Your task to perform on an android device: check google app version Image 0: 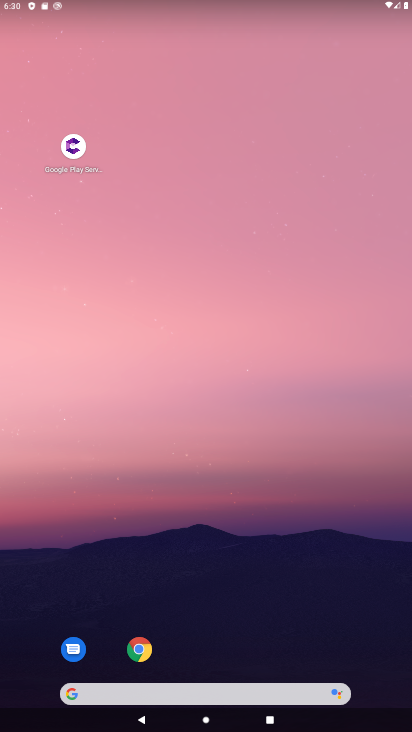
Step 0: drag from (222, 592) to (172, 61)
Your task to perform on an android device: check google app version Image 1: 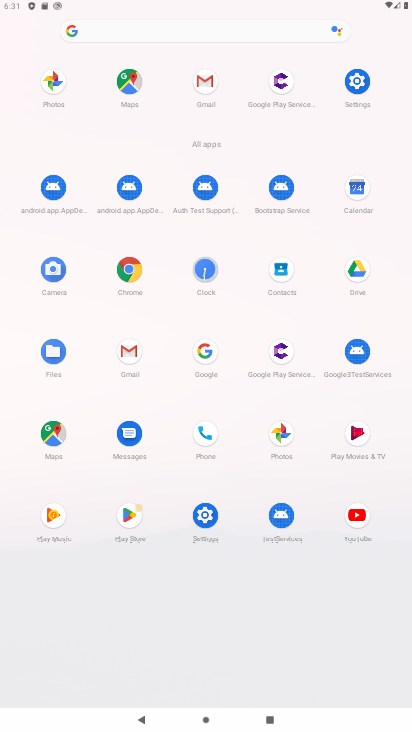
Step 1: click (200, 351)
Your task to perform on an android device: check google app version Image 2: 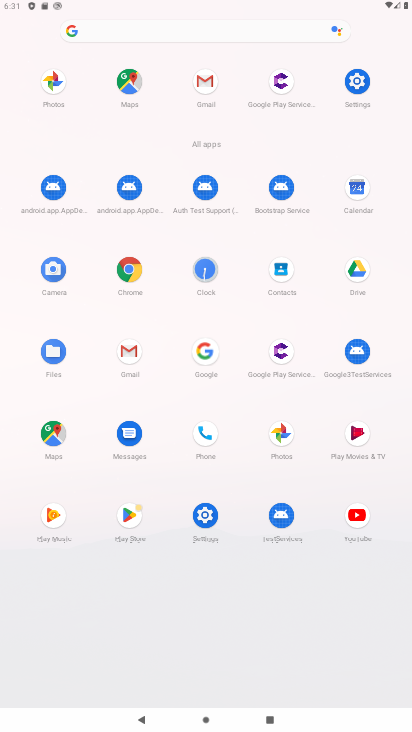
Step 2: click (207, 353)
Your task to perform on an android device: check google app version Image 3: 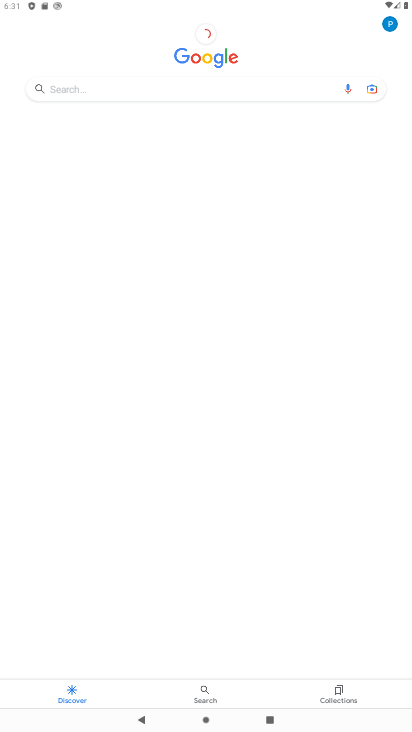
Step 3: click (389, 21)
Your task to perform on an android device: check google app version Image 4: 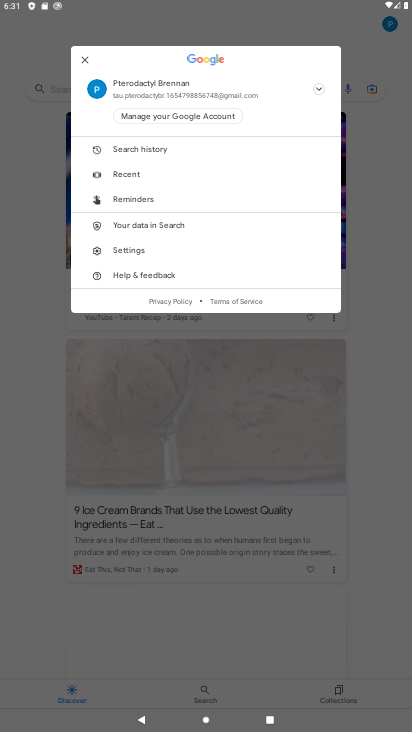
Step 4: click (139, 251)
Your task to perform on an android device: check google app version Image 5: 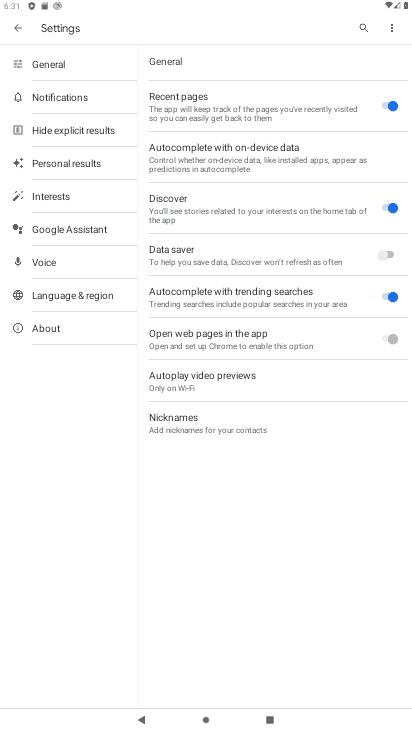
Step 5: click (43, 328)
Your task to perform on an android device: check google app version Image 6: 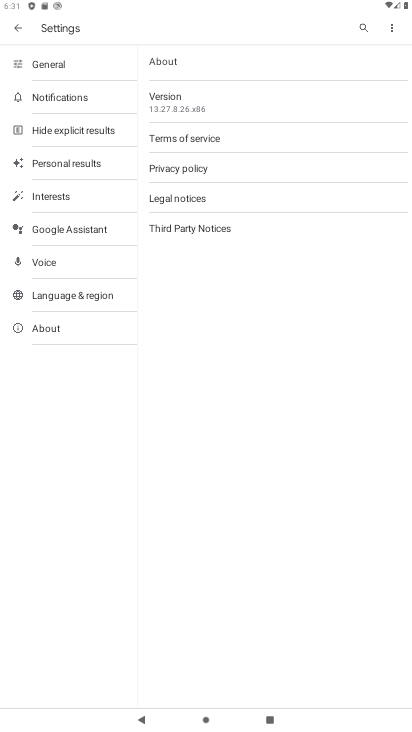
Step 6: task complete